Your task to perform on an android device: Play the last video I watched on Youtube Image 0: 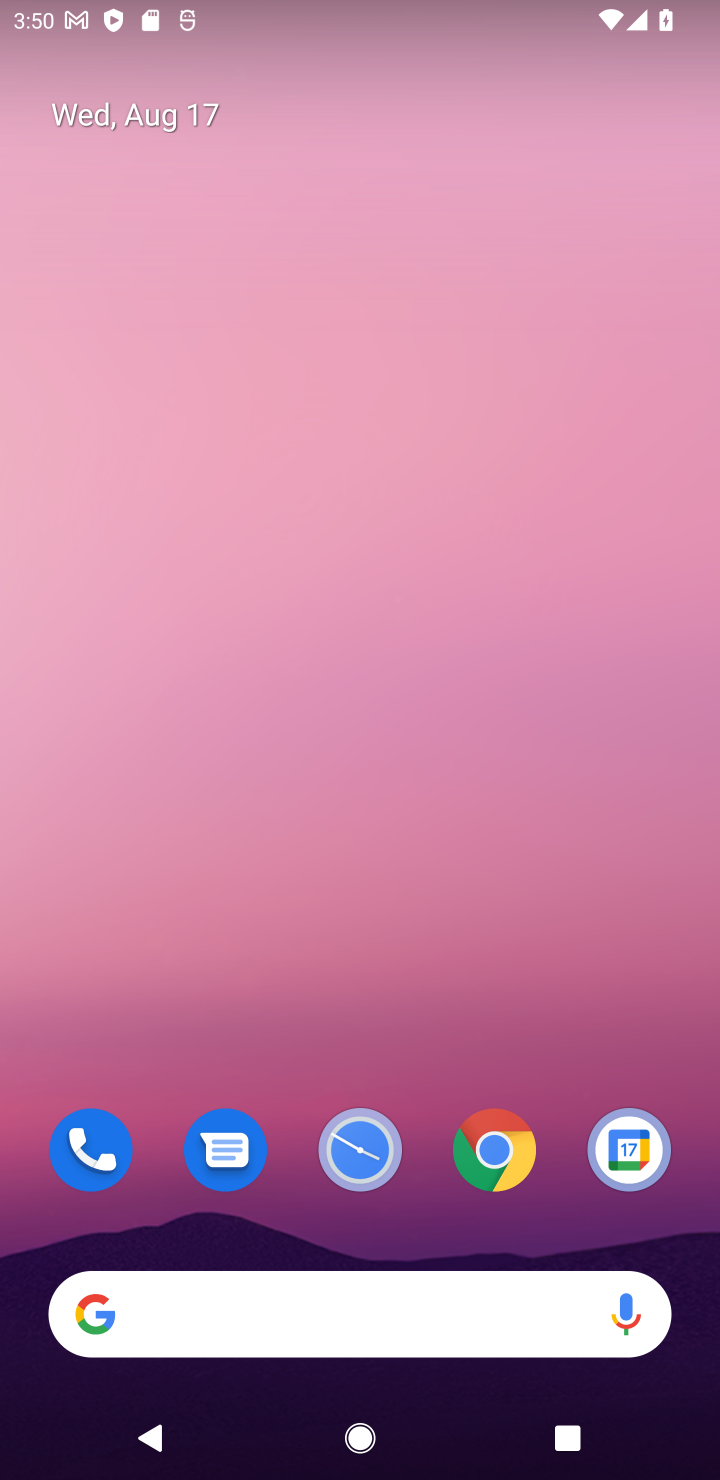
Step 0: drag from (507, 913) to (237, 39)
Your task to perform on an android device: Play the last video I watched on Youtube Image 1: 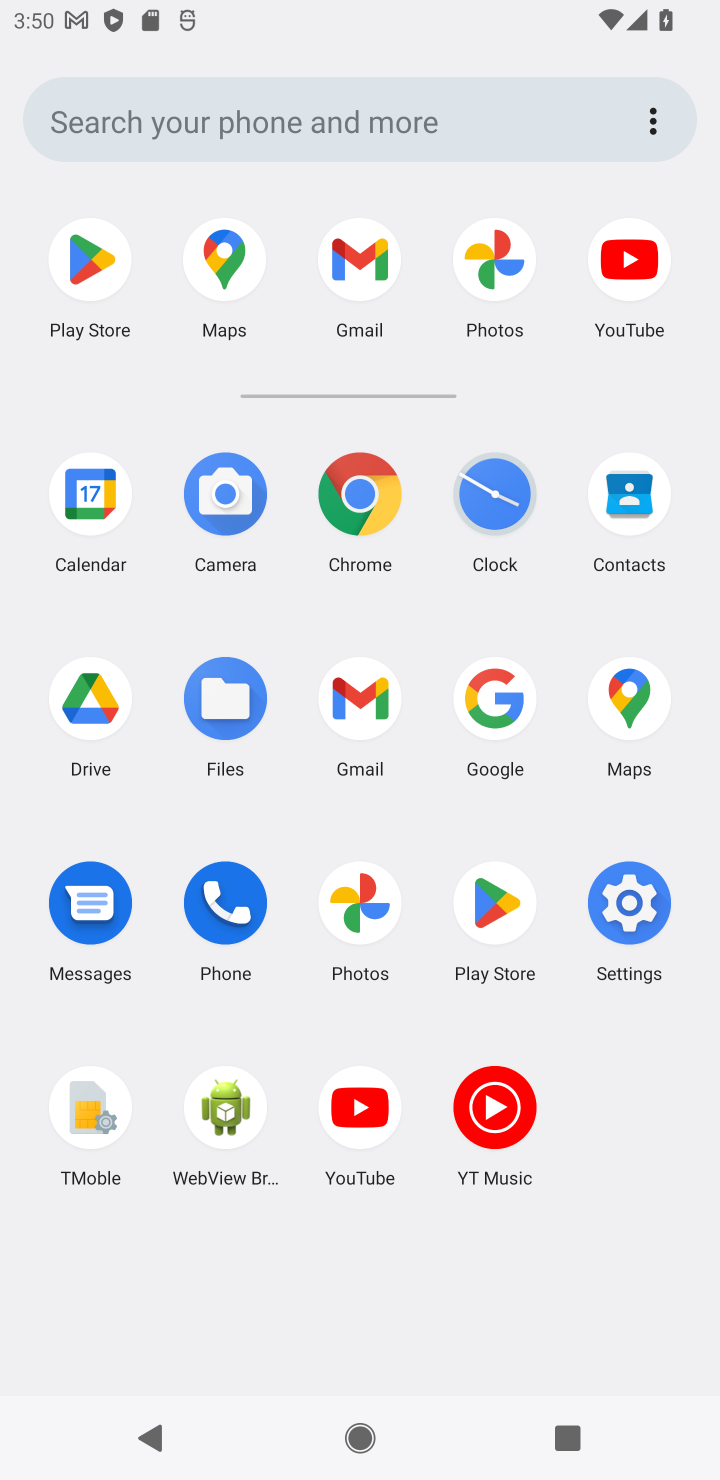
Step 1: click (344, 1080)
Your task to perform on an android device: Play the last video I watched on Youtube Image 2: 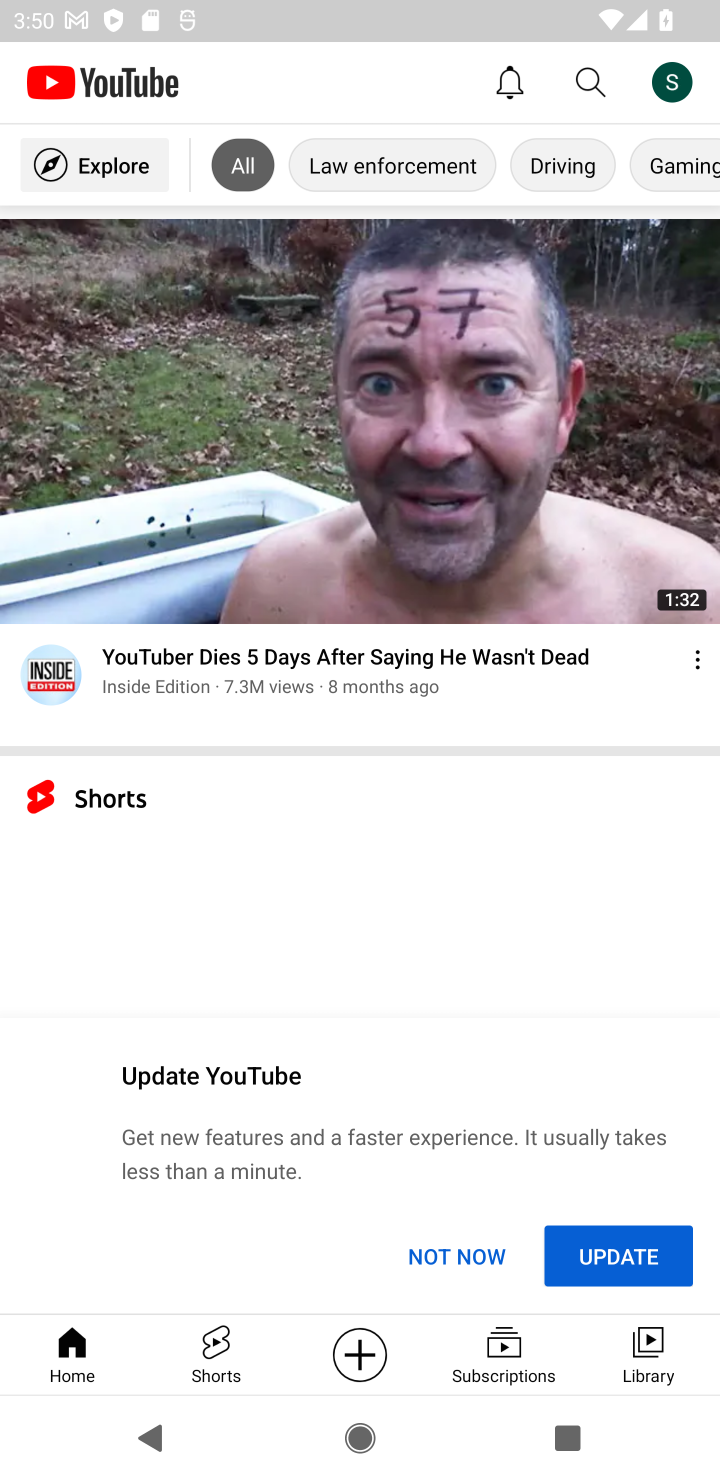
Step 2: task complete